Your task to perform on an android device: Show me popular videos on Youtube Image 0: 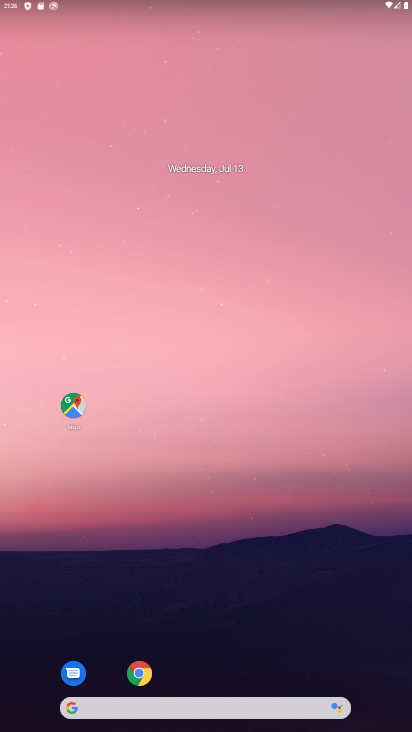
Step 0: drag from (203, 674) to (203, 262)
Your task to perform on an android device: Show me popular videos on Youtube Image 1: 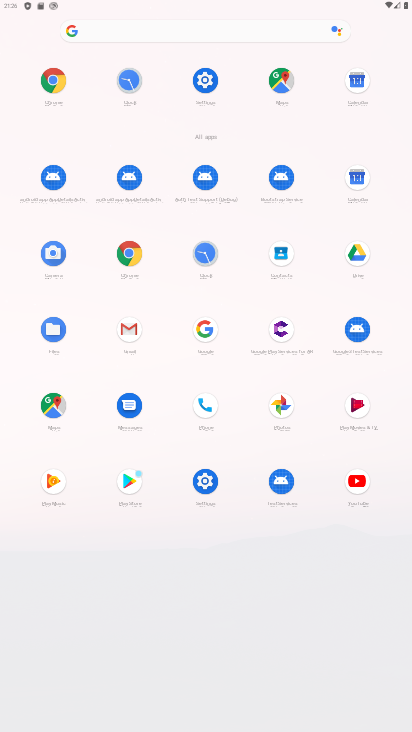
Step 1: click (355, 493)
Your task to perform on an android device: Show me popular videos on Youtube Image 2: 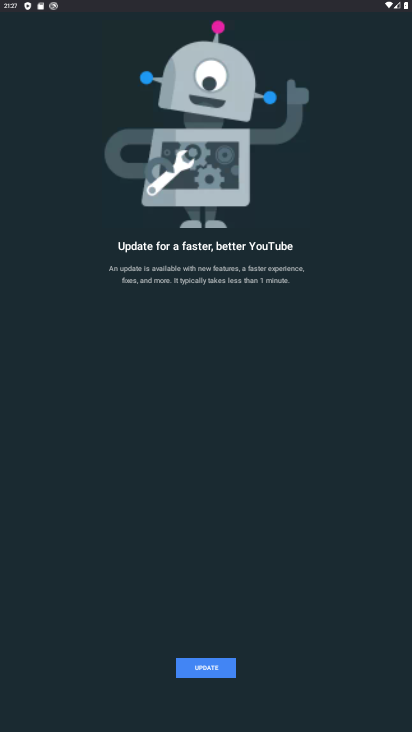
Step 2: click (228, 667)
Your task to perform on an android device: Show me popular videos on Youtube Image 3: 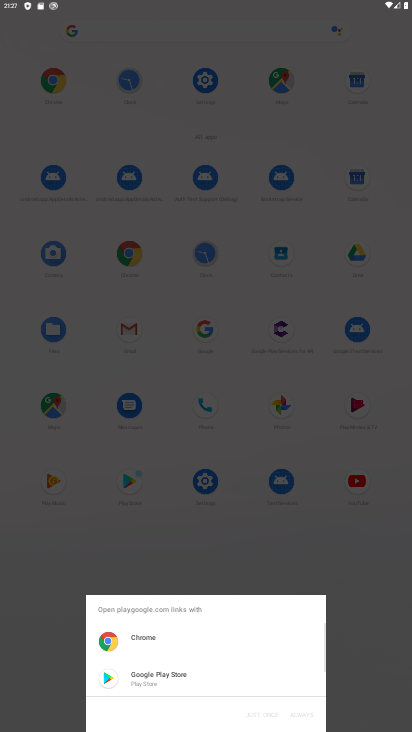
Step 3: click (176, 686)
Your task to perform on an android device: Show me popular videos on Youtube Image 4: 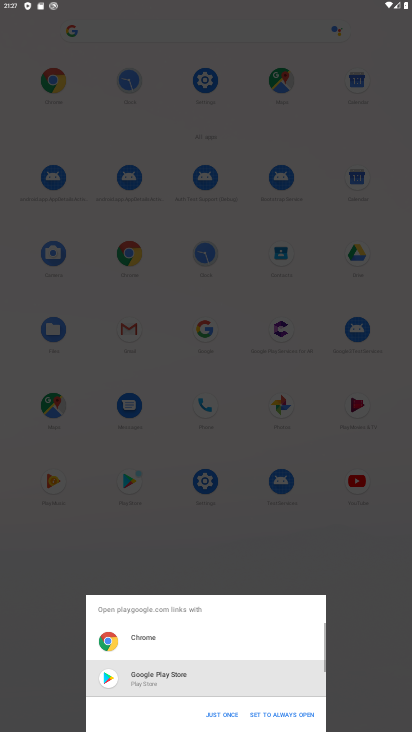
Step 4: click (225, 714)
Your task to perform on an android device: Show me popular videos on Youtube Image 5: 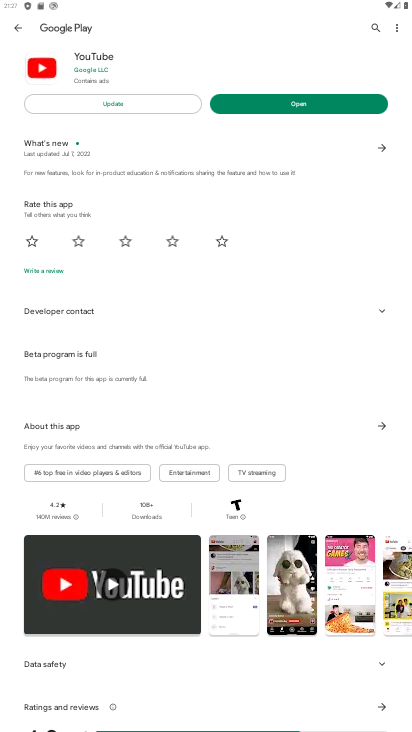
Step 5: click (126, 107)
Your task to perform on an android device: Show me popular videos on Youtube Image 6: 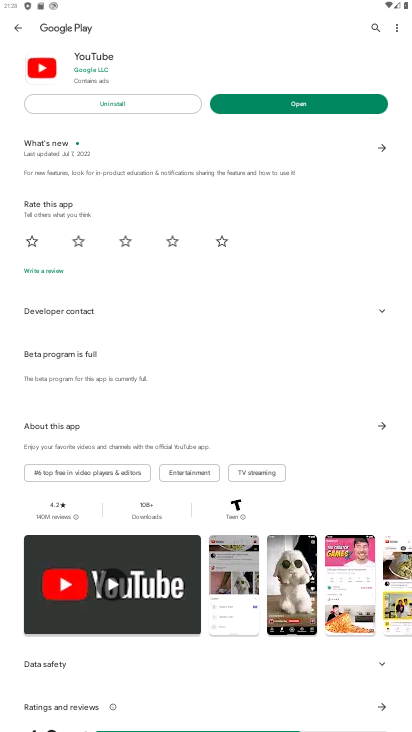
Step 6: click (292, 105)
Your task to perform on an android device: Show me popular videos on Youtube Image 7: 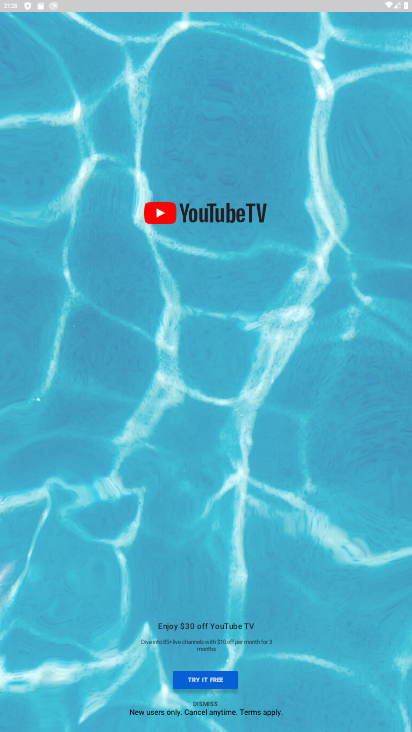
Step 7: press back button
Your task to perform on an android device: Show me popular videos on Youtube Image 8: 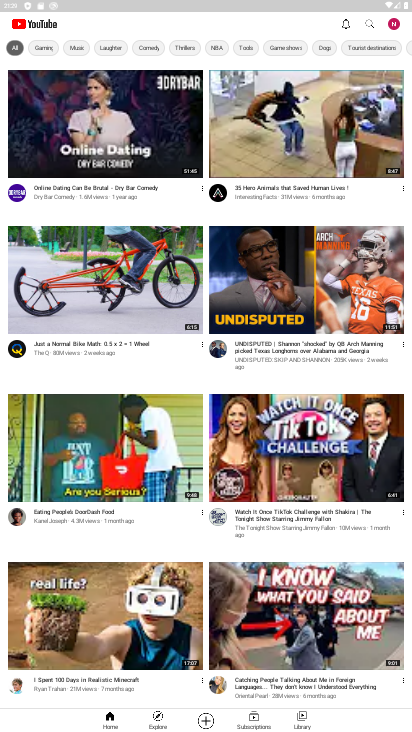
Step 8: click (368, 23)
Your task to perform on an android device: Show me popular videos on Youtube Image 9: 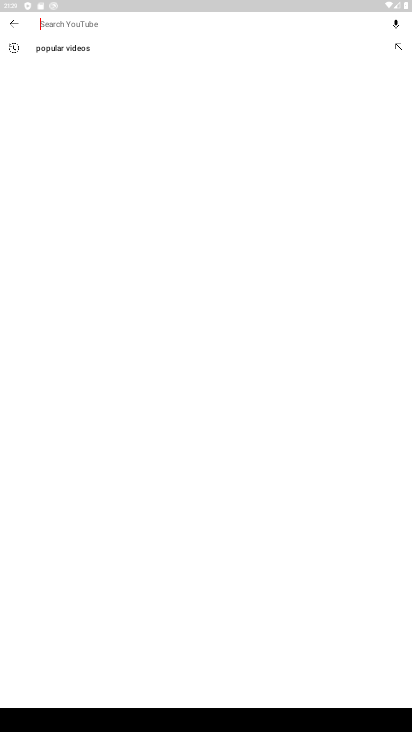
Step 9: click (92, 49)
Your task to perform on an android device: Show me popular videos on Youtube Image 10: 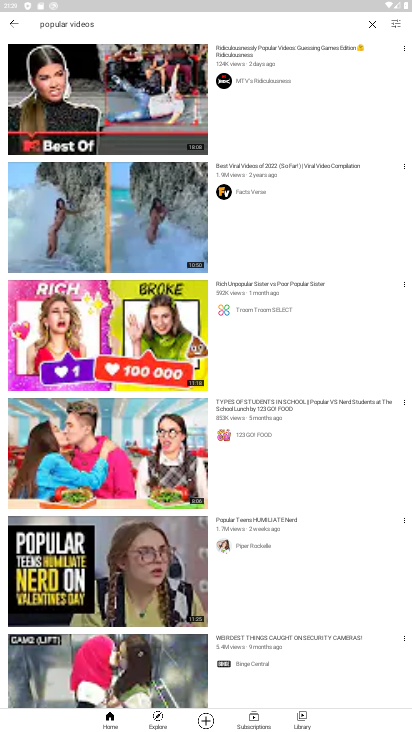
Step 10: task complete